Your task to perform on an android device: When is my next appointment? Image 0: 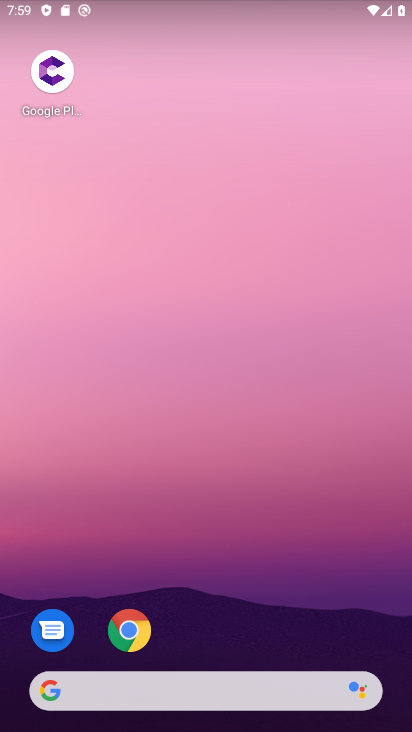
Step 0: drag from (254, 628) to (278, 206)
Your task to perform on an android device: When is my next appointment? Image 1: 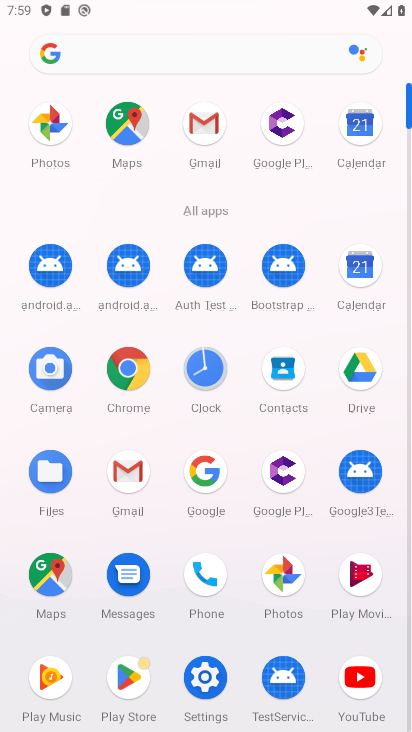
Step 1: click (362, 290)
Your task to perform on an android device: When is my next appointment? Image 2: 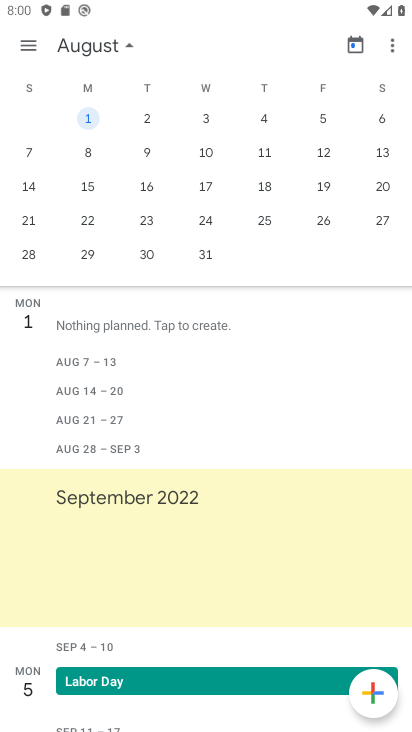
Step 2: drag from (58, 159) to (370, 133)
Your task to perform on an android device: When is my next appointment? Image 3: 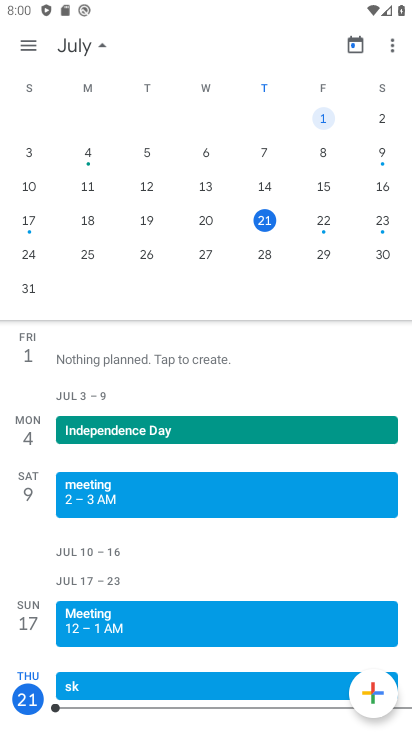
Step 3: click (260, 223)
Your task to perform on an android device: When is my next appointment? Image 4: 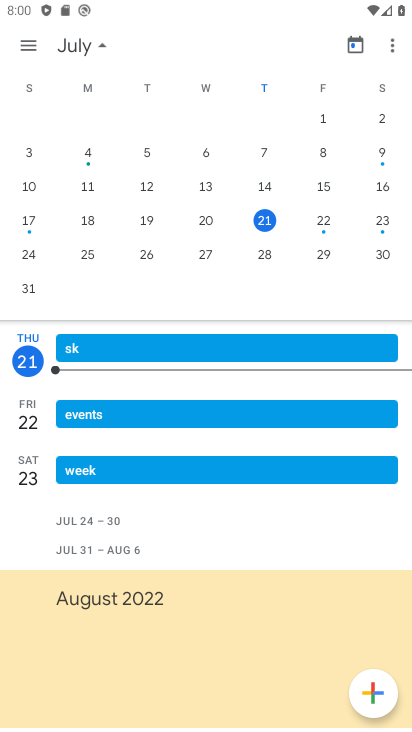
Step 4: task complete